Your task to perform on an android device: Open calendar and show me the first week of next month Image 0: 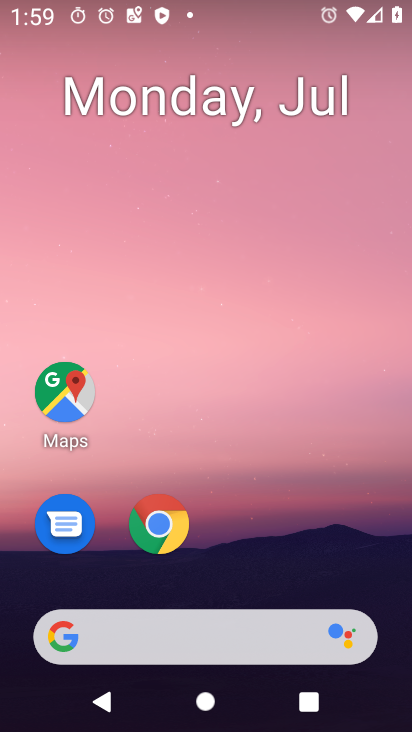
Step 0: press home button
Your task to perform on an android device: Open calendar and show me the first week of next month Image 1: 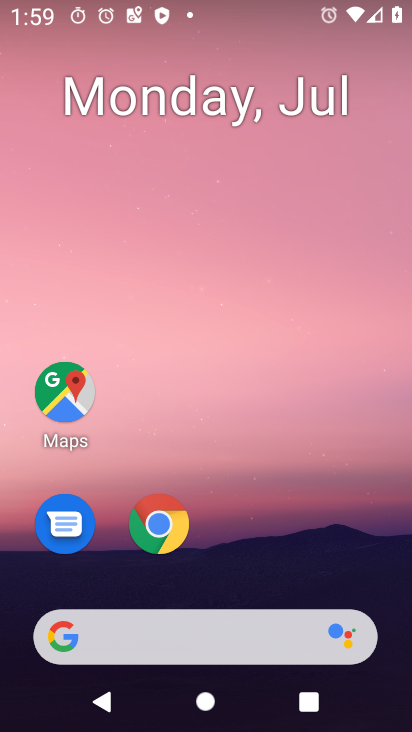
Step 1: drag from (302, 546) to (261, 156)
Your task to perform on an android device: Open calendar and show me the first week of next month Image 2: 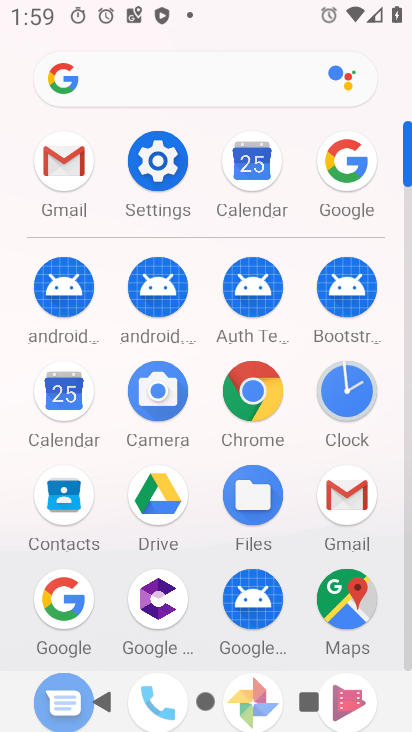
Step 2: click (74, 383)
Your task to perform on an android device: Open calendar and show me the first week of next month Image 3: 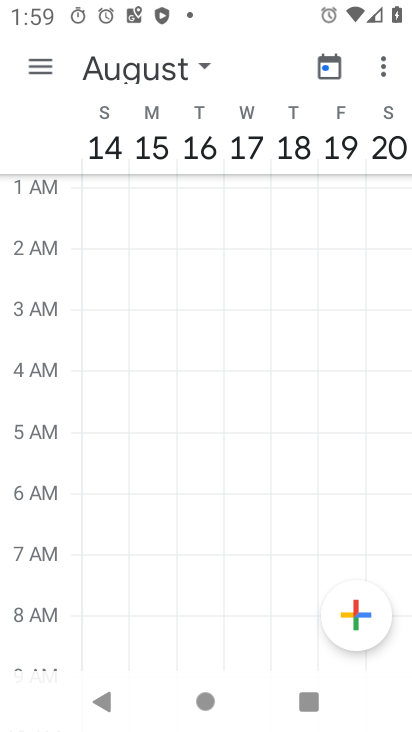
Step 3: task complete